Your task to perform on an android device: Clear the cart on target. Image 0: 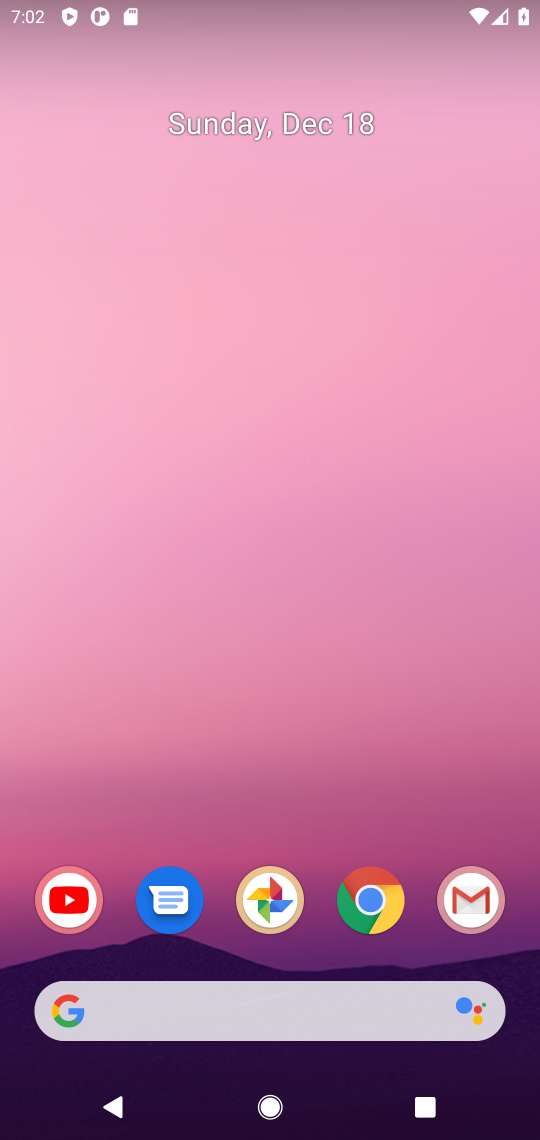
Step 0: click (367, 883)
Your task to perform on an android device: Clear the cart on target. Image 1: 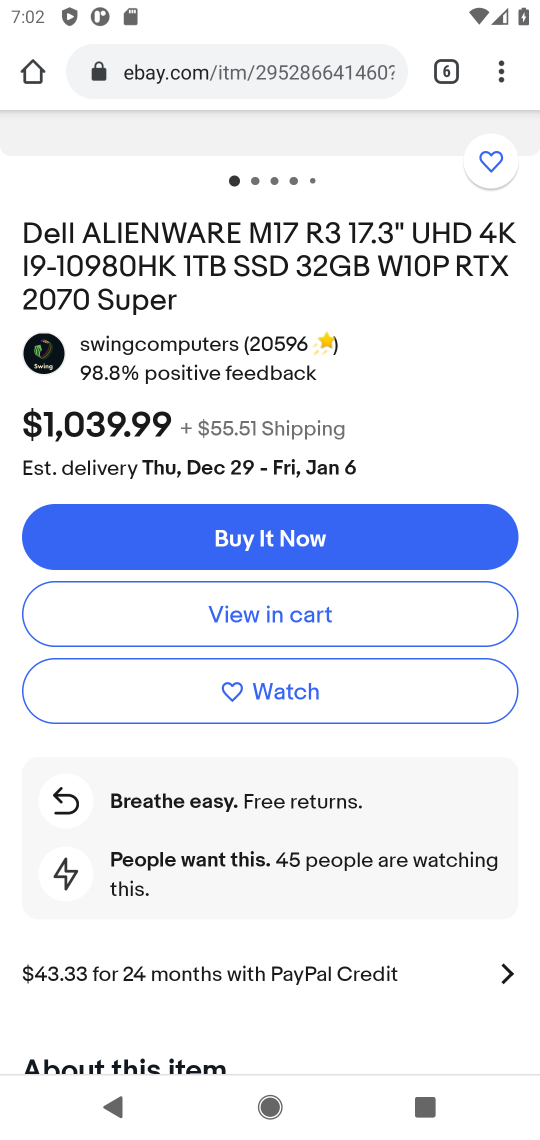
Step 1: click (445, 86)
Your task to perform on an android device: Clear the cart on target. Image 2: 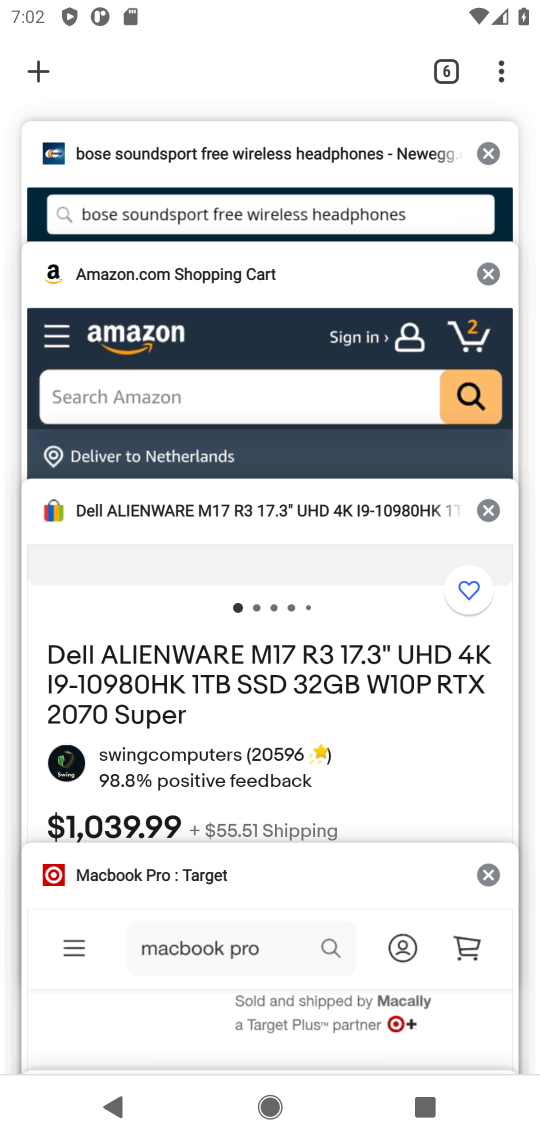
Step 2: click (226, 922)
Your task to perform on an android device: Clear the cart on target. Image 3: 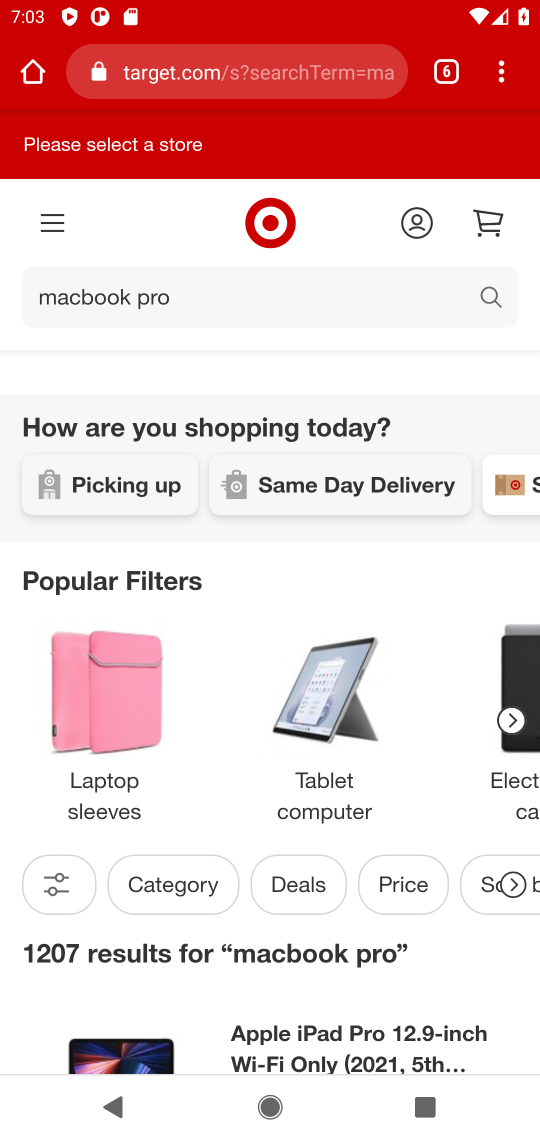
Step 3: click (484, 217)
Your task to perform on an android device: Clear the cart on target. Image 4: 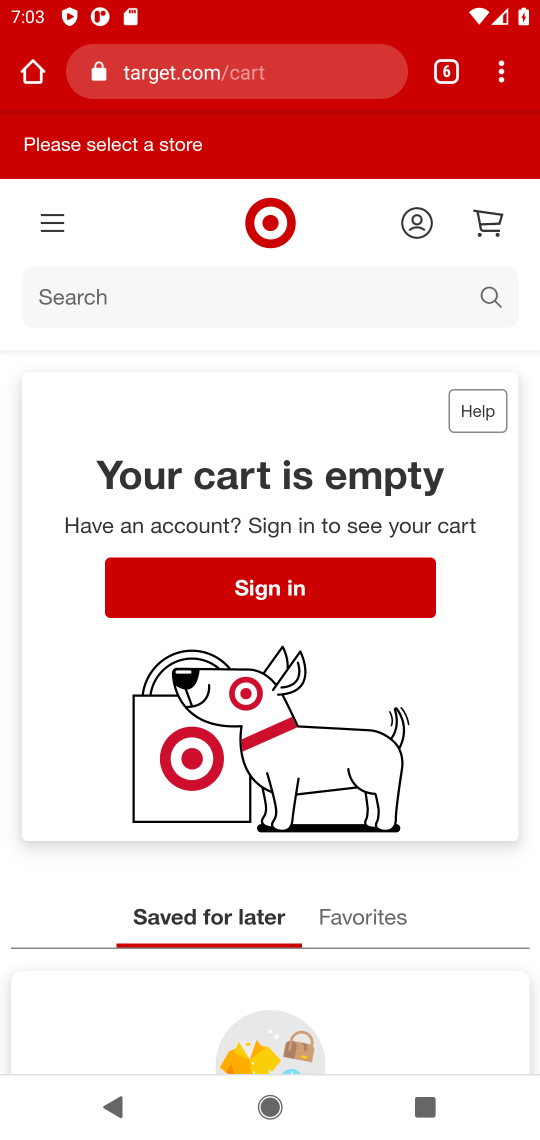
Step 4: task complete